Your task to perform on an android device: Go to Wikipedia Image 0: 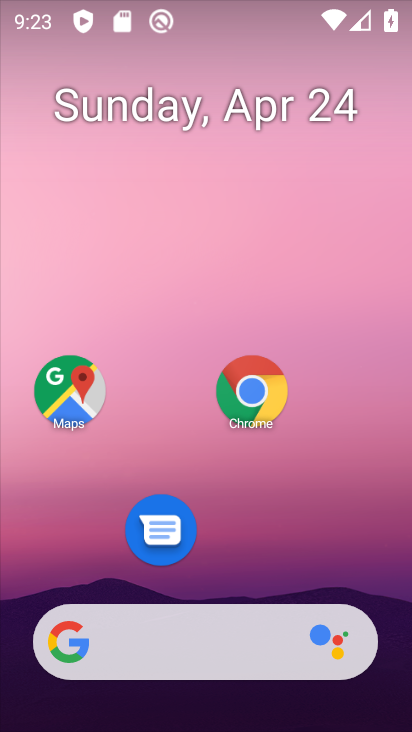
Step 0: click (251, 397)
Your task to perform on an android device: Go to Wikipedia Image 1: 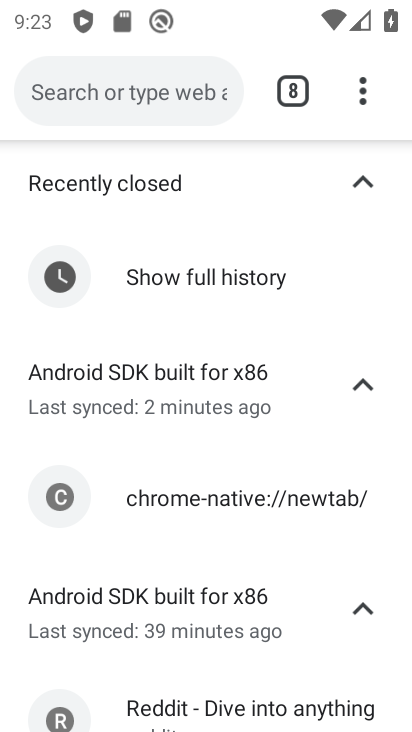
Step 1: click (293, 86)
Your task to perform on an android device: Go to Wikipedia Image 2: 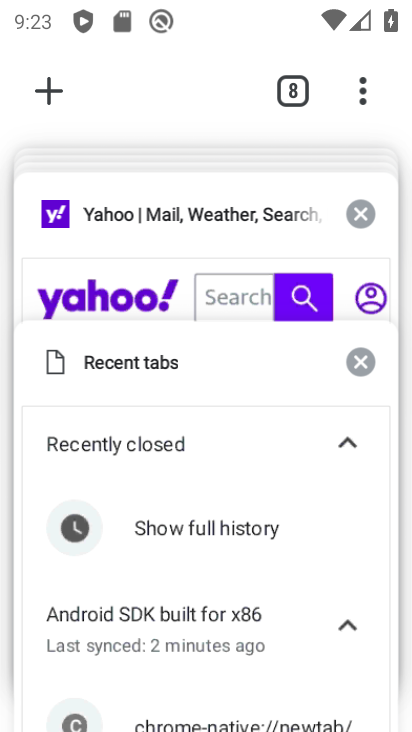
Step 2: click (70, 98)
Your task to perform on an android device: Go to Wikipedia Image 3: 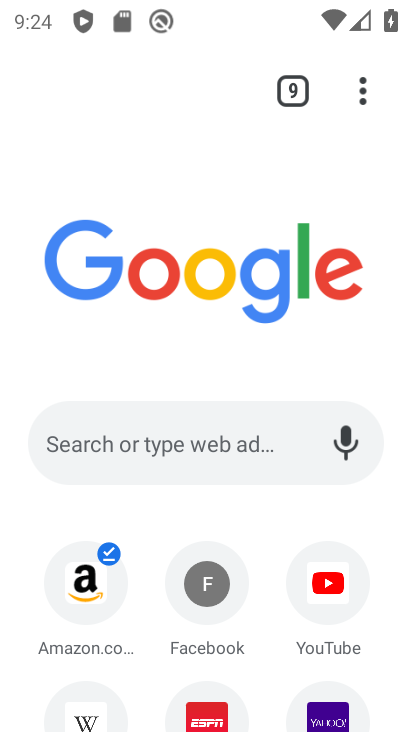
Step 3: click (92, 710)
Your task to perform on an android device: Go to Wikipedia Image 4: 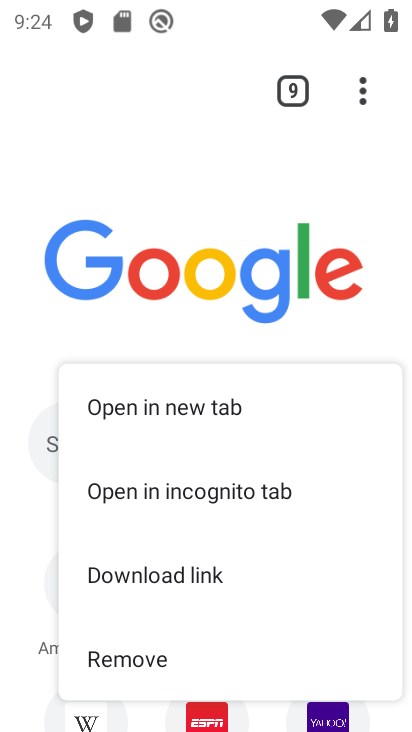
Step 4: click (156, 411)
Your task to perform on an android device: Go to Wikipedia Image 5: 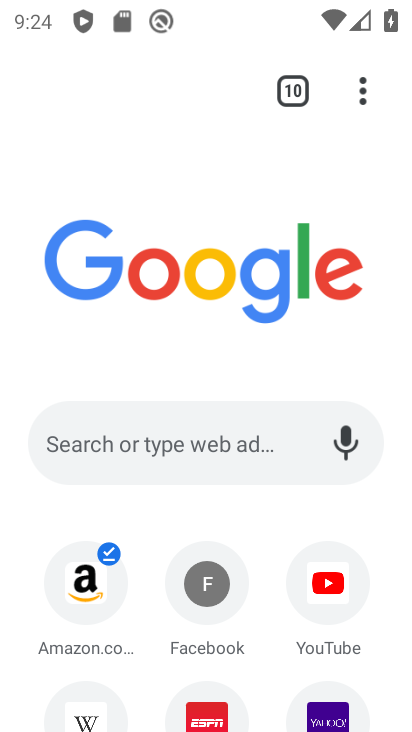
Step 5: click (66, 712)
Your task to perform on an android device: Go to Wikipedia Image 6: 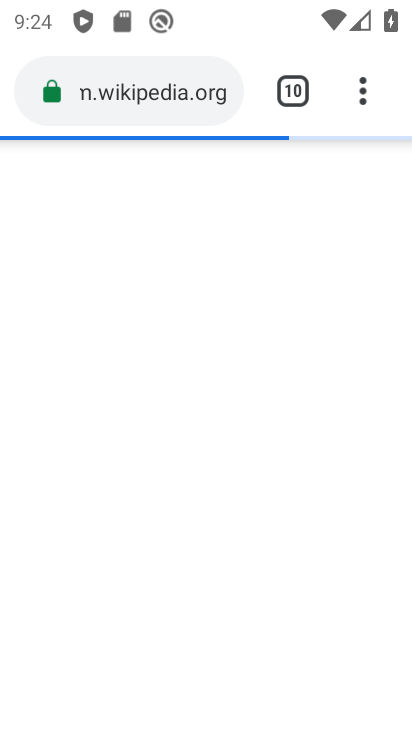
Step 6: task complete